Your task to perform on an android device: Go to Amazon Image 0: 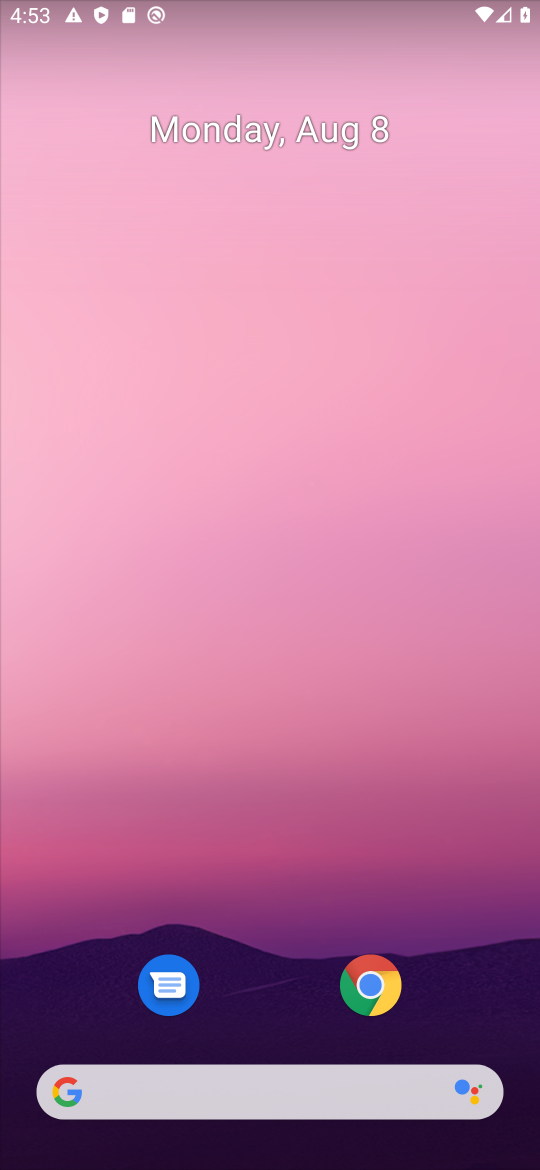
Step 0: drag from (322, 868) to (282, 71)
Your task to perform on an android device: Go to Amazon Image 1: 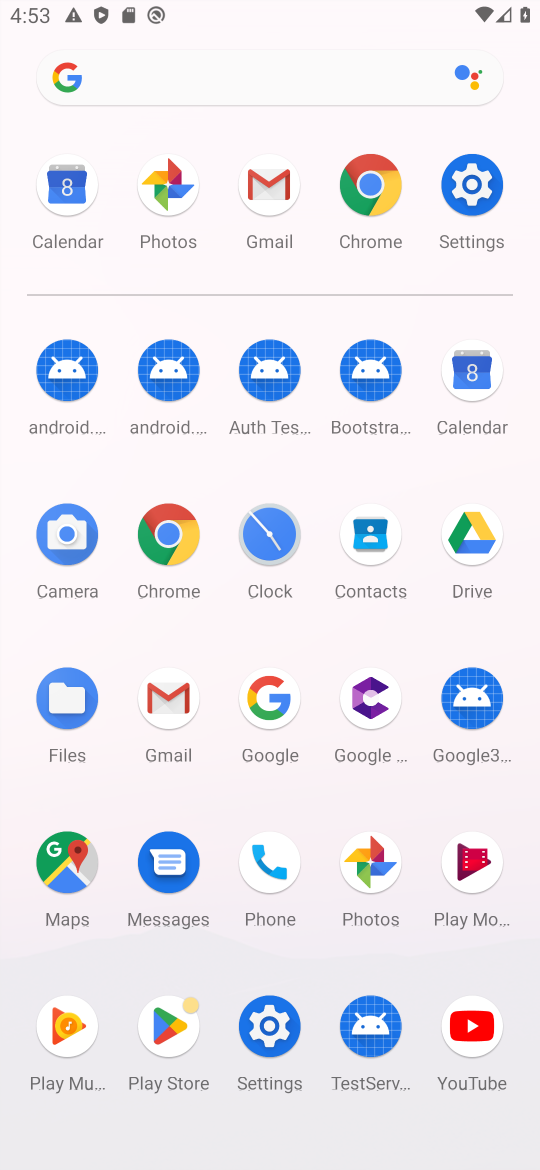
Step 1: click (175, 547)
Your task to perform on an android device: Go to Amazon Image 2: 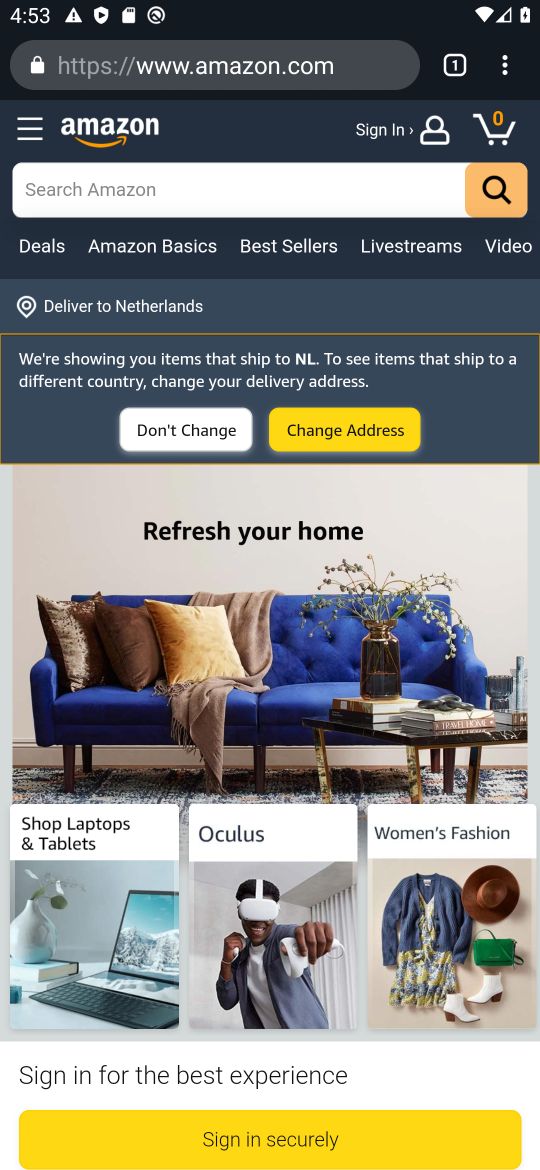
Step 2: click (464, 70)
Your task to perform on an android device: Go to Amazon Image 3: 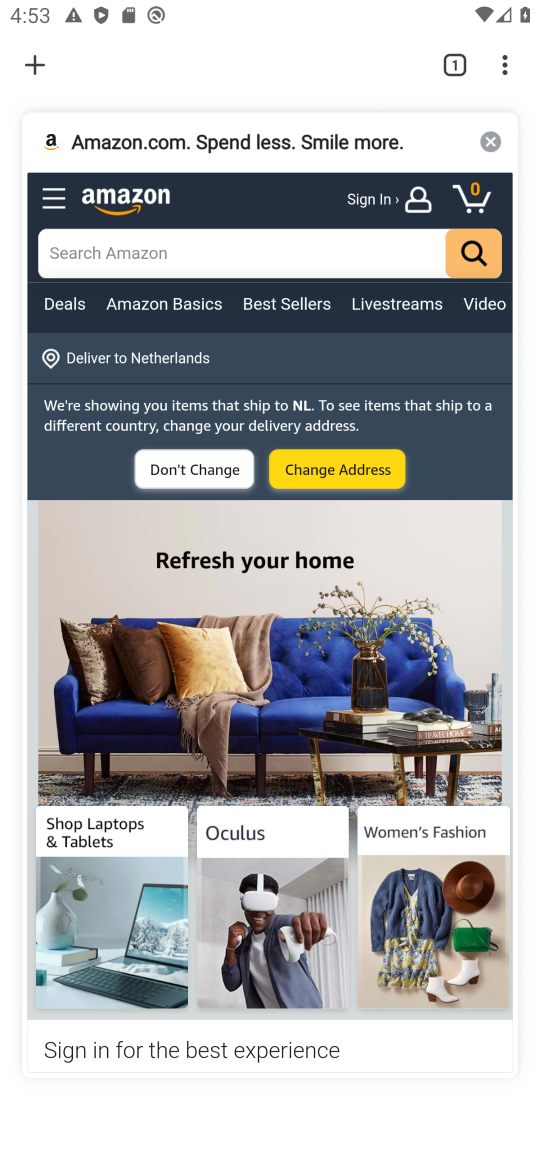
Step 3: task complete